Your task to perform on an android device: Open network settings Image 0: 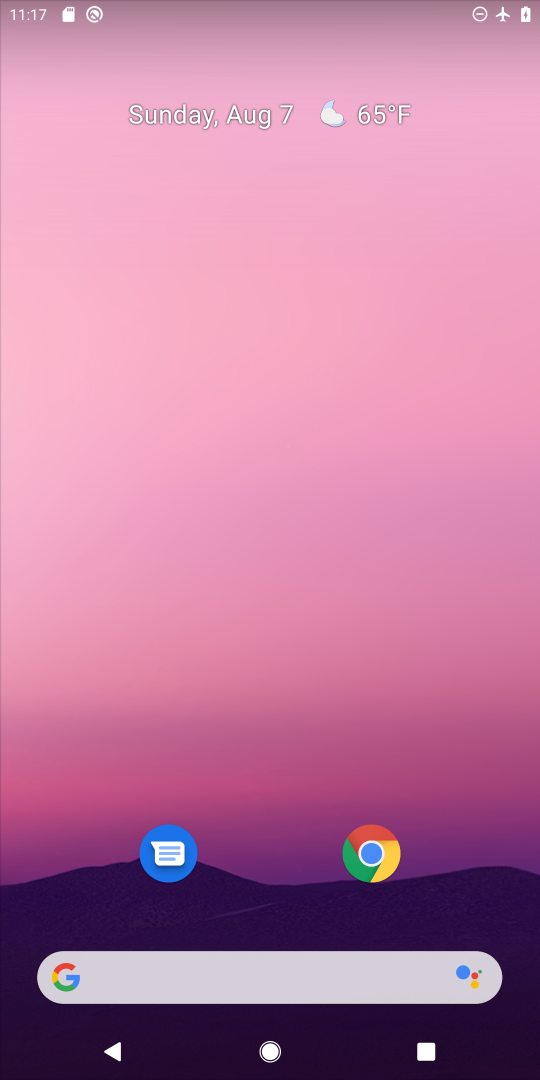
Step 0: drag from (296, 926) to (350, 231)
Your task to perform on an android device: Open network settings Image 1: 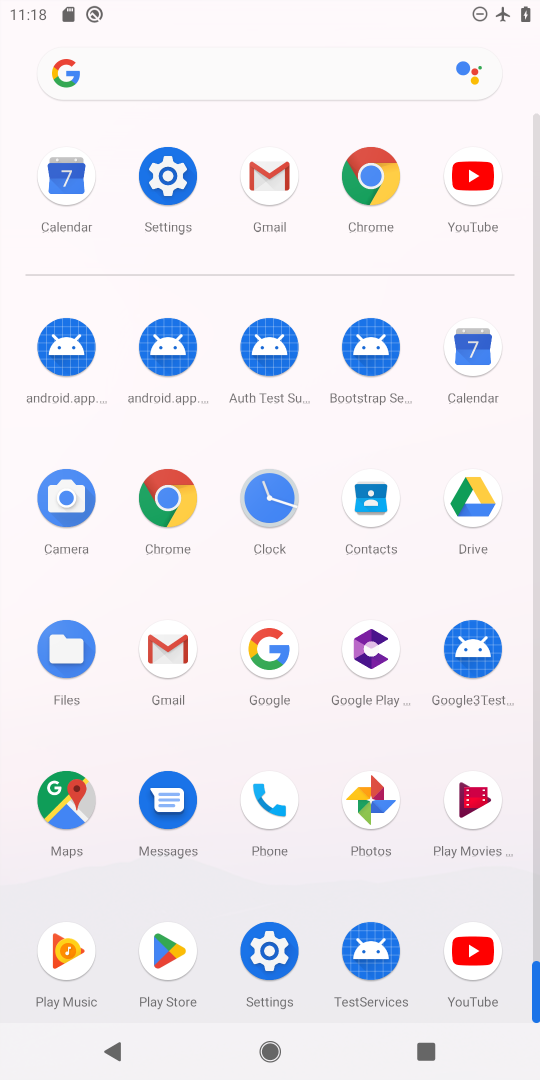
Step 1: click (168, 155)
Your task to perform on an android device: Open network settings Image 2: 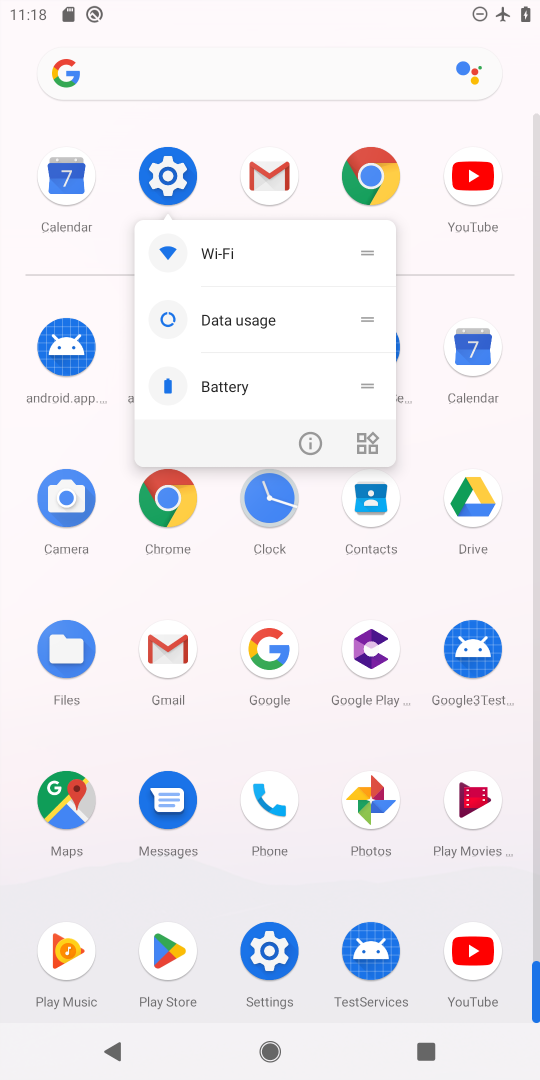
Step 2: click (168, 181)
Your task to perform on an android device: Open network settings Image 3: 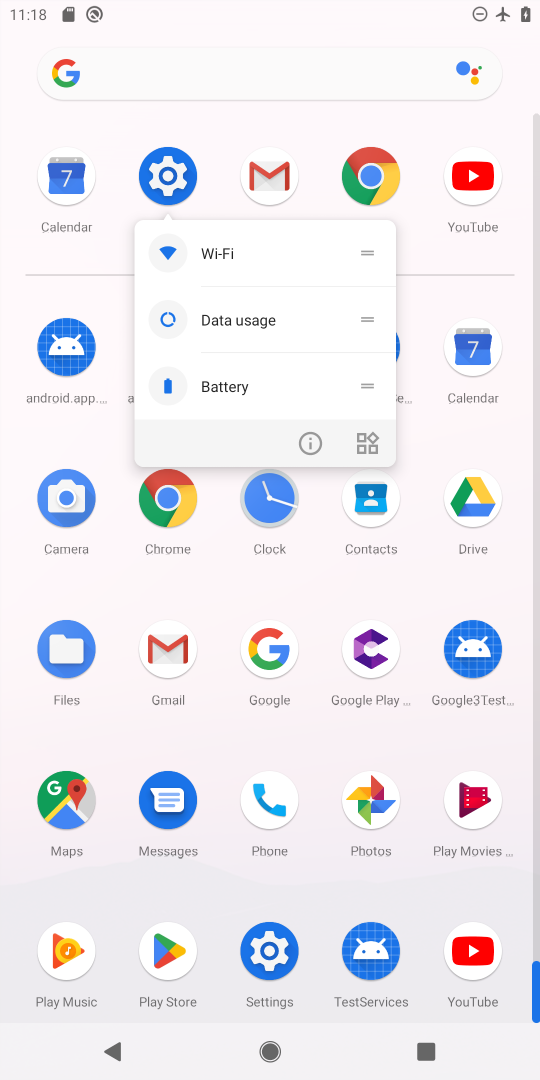
Step 3: click (168, 181)
Your task to perform on an android device: Open network settings Image 4: 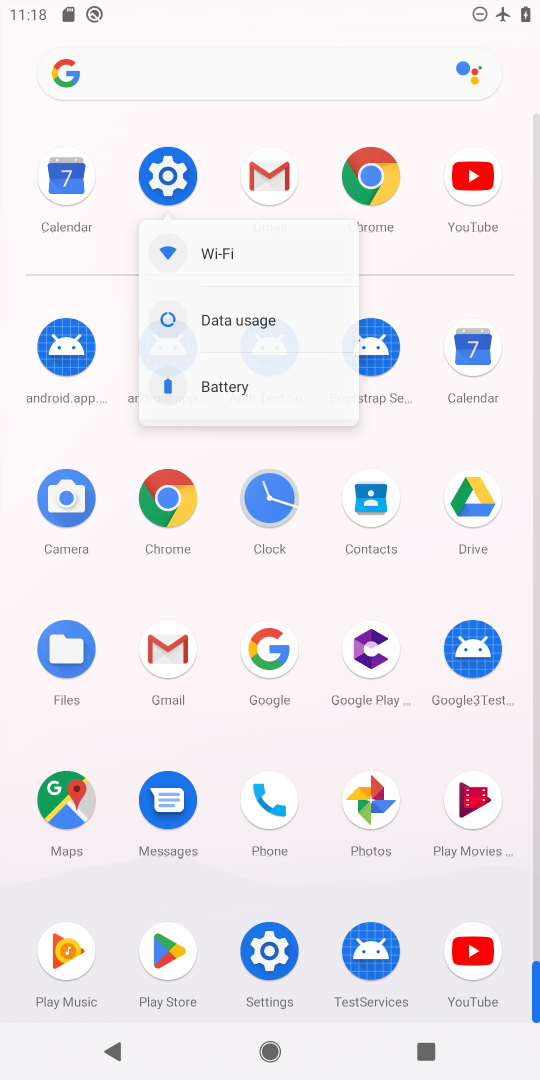
Step 4: click (168, 181)
Your task to perform on an android device: Open network settings Image 5: 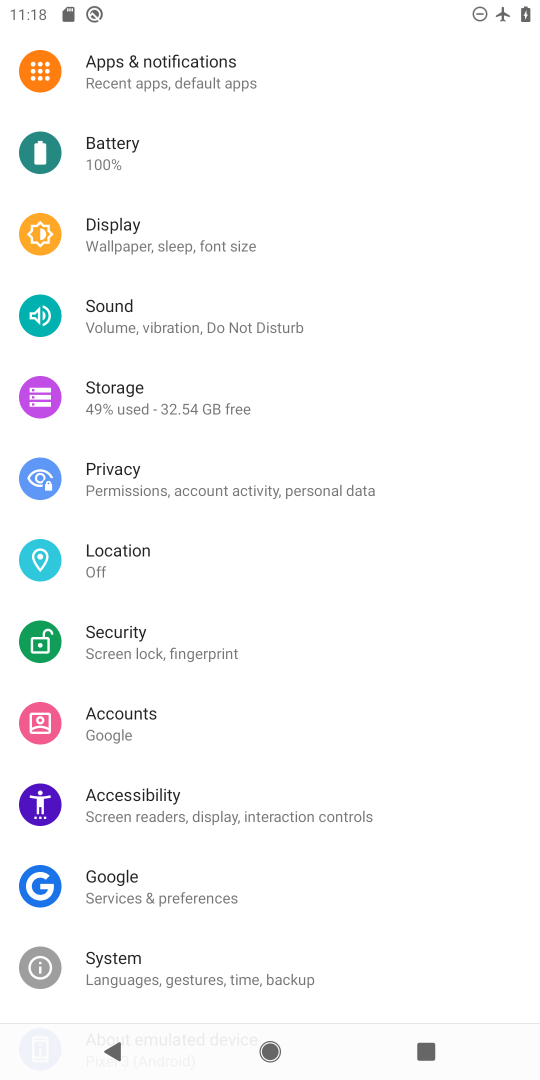
Step 5: drag from (285, 109) to (213, 783)
Your task to perform on an android device: Open network settings Image 6: 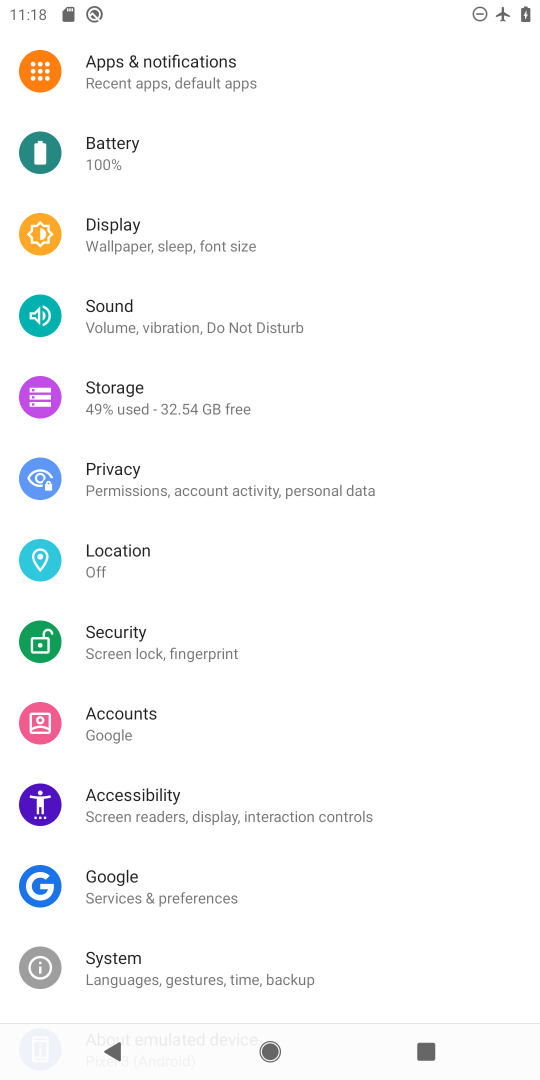
Step 6: drag from (134, 74) to (146, 1060)
Your task to perform on an android device: Open network settings Image 7: 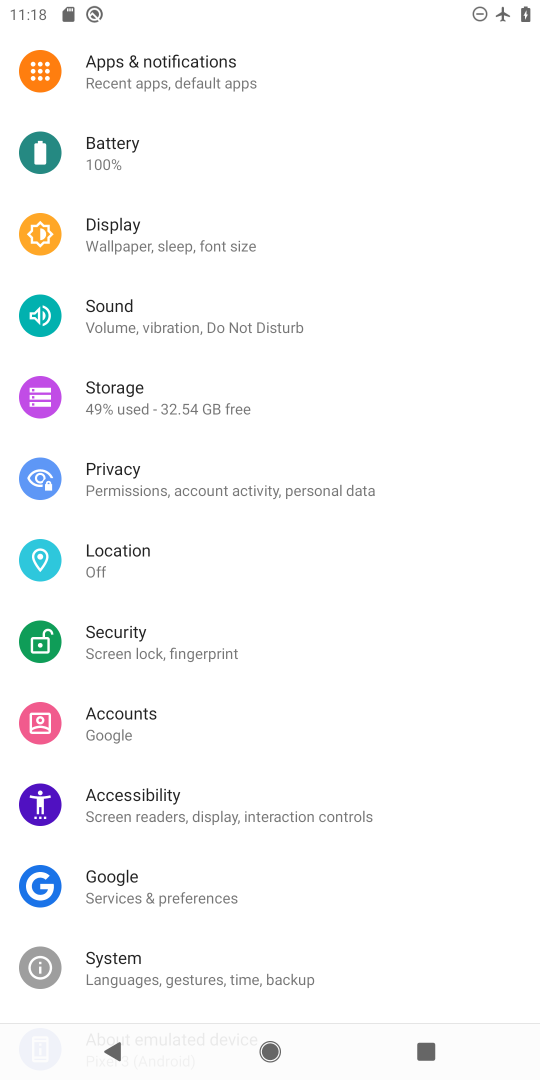
Step 7: drag from (193, 129) to (193, 435)
Your task to perform on an android device: Open network settings Image 8: 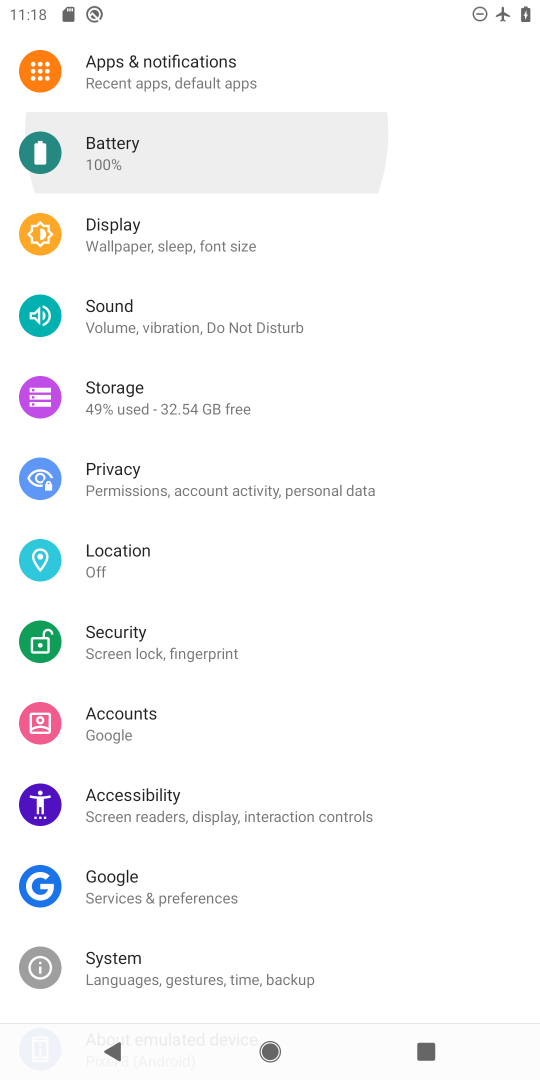
Step 8: drag from (188, 92) to (195, 546)
Your task to perform on an android device: Open network settings Image 9: 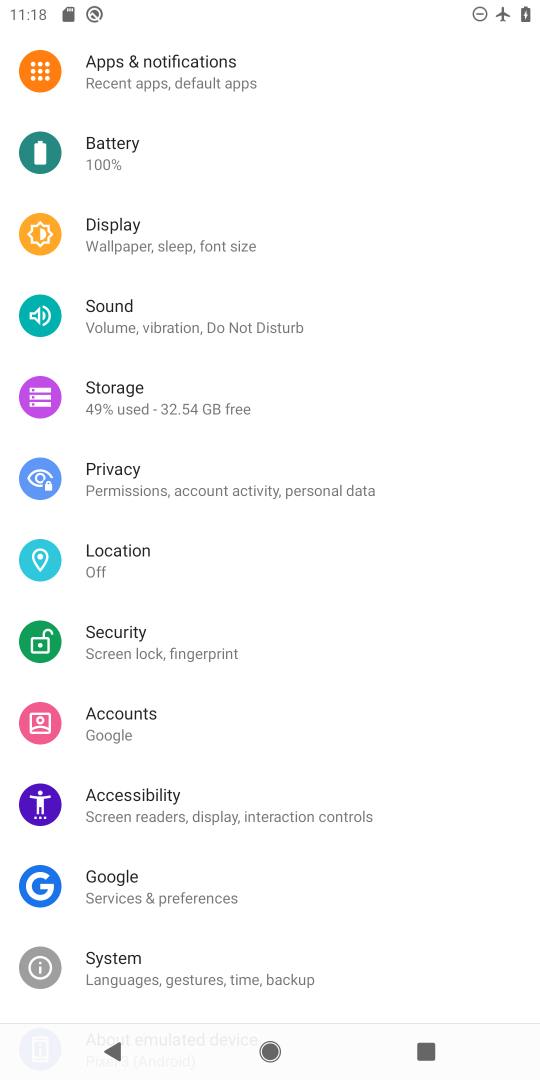
Step 9: drag from (205, 232) to (232, 672)
Your task to perform on an android device: Open network settings Image 10: 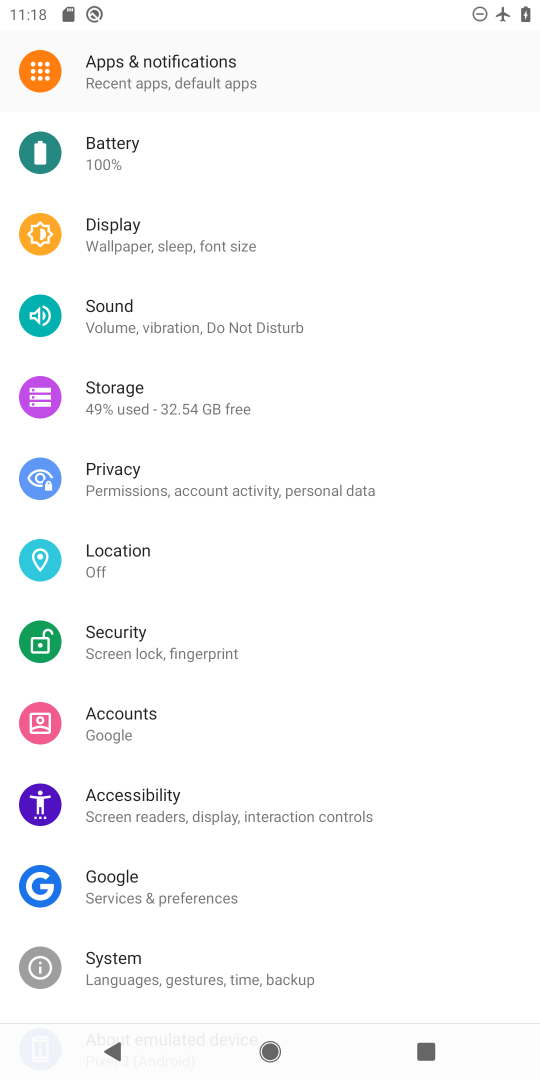
Step 10: drag from (224, 155) to (235, 717)
Your task to perform on an android device: Open network settings Image 11: 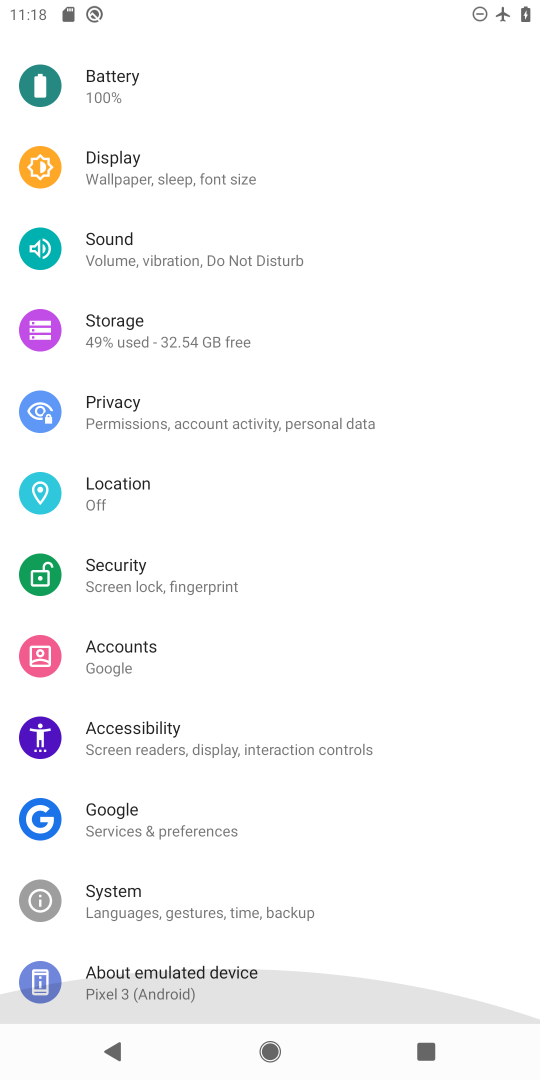
Step 11: drag from (212, 259) to (232, 668)
Your task to perform on an android device: Open network settings Image 12: 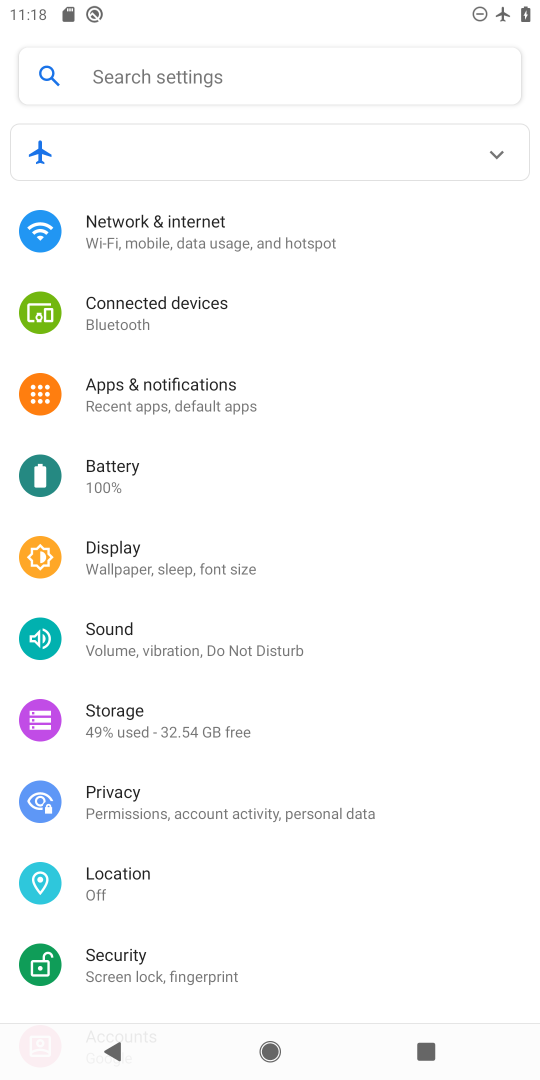
Step 12: click (225, 226)
Your task to perform on an android device: Open network settings Image 13: 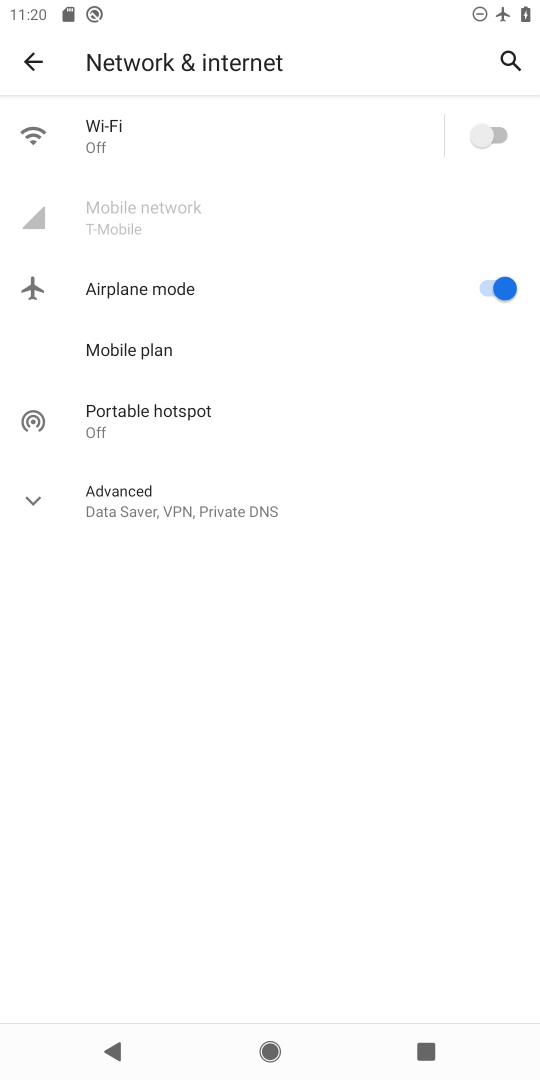
Step 13: task complete